Your task to perform on an android device: toggle show notifications on the lock screen Image 0: 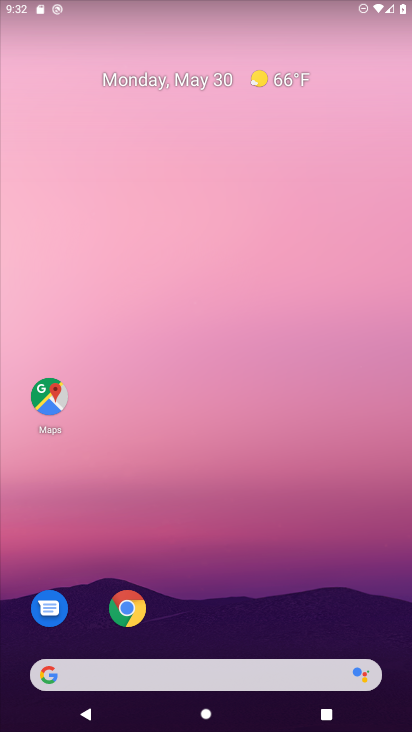
Step 0: drag from (236, 713) to (223, 153)
Your task to perform on an android device: toggle show notifications on the lock screen Image 1: 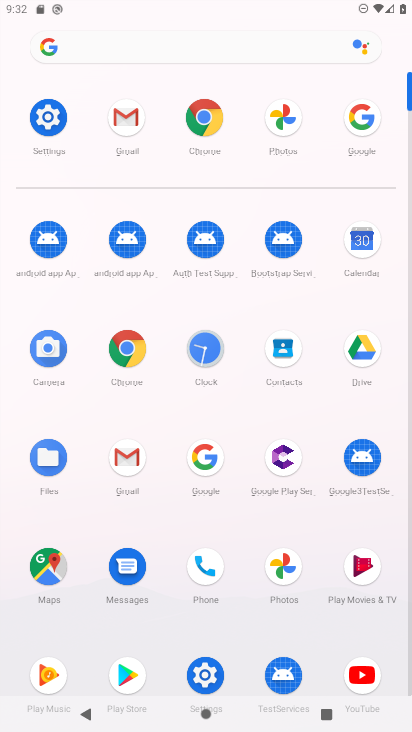
Step 1: click (211, 673)
Your task to perform on an android device: toggle show notifications on the lock screen Image 2: 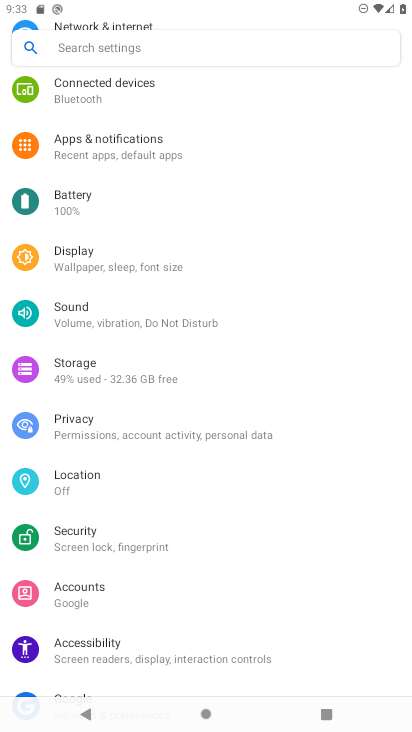
Step 2: click (85, 152)
Your task to perform on an android device: toggle show notifications on the lock screen Image 3: 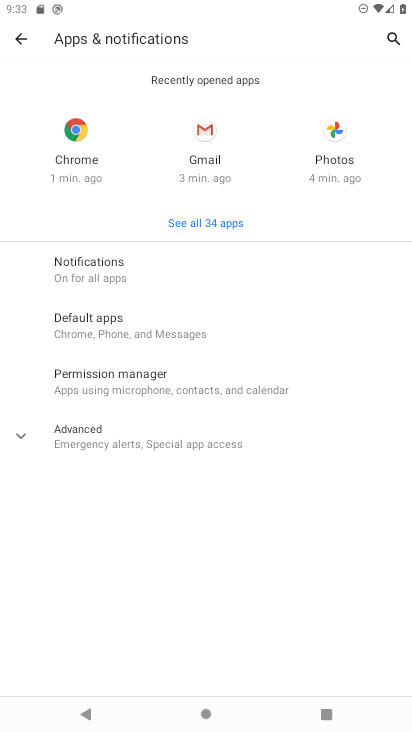
Step 3: click (102, 271)
Your task to perform on an android device: toggle show notifications on the lock screen Image 4: 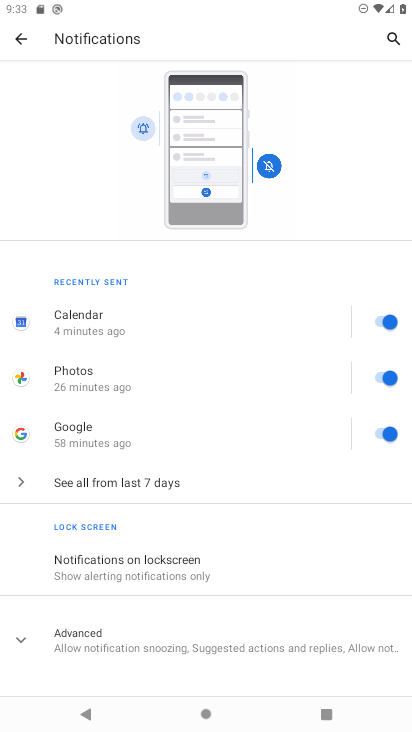
Step 4: click (136, 565)
Your task to perform on an android device: toggle show notifications on the lock screen Image 5: 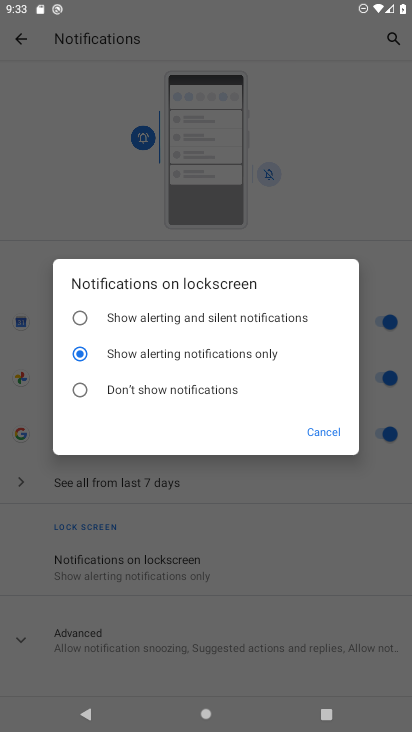
Step 5: click (79, 389)
Your task to perform on an android device: toggle show notifications on the lock screen Image 6: 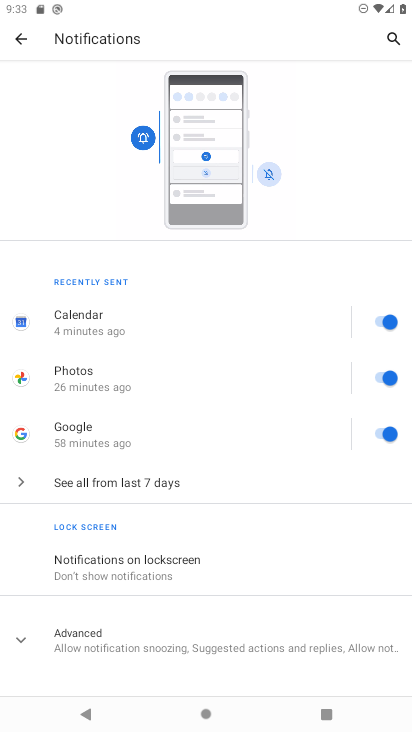
Step 6: task complete